Your task to perform on an android device: Go to eBay Image 0: 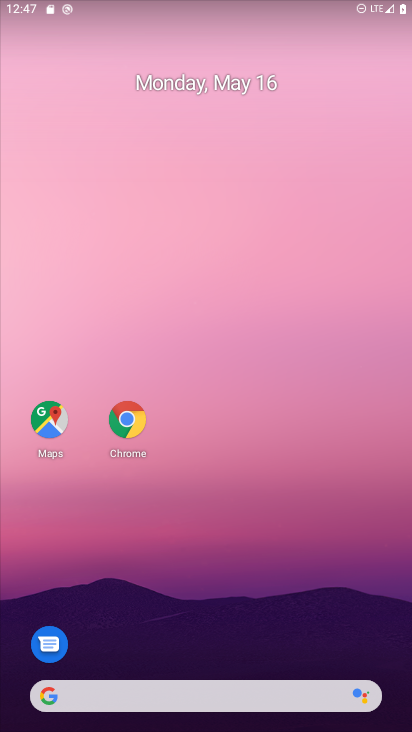
Step 0: click (200, 701)
Your task to perform on an android device: Go to eBay Image 1: 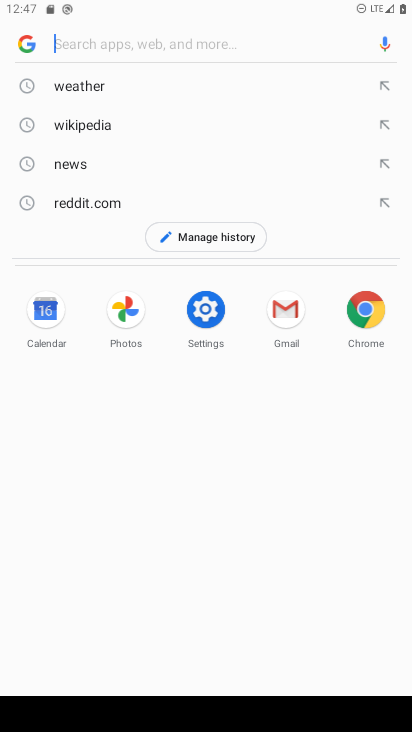
Step 1: type "ebay"
Your task to perform on an android device: Go to eBay Image 2: 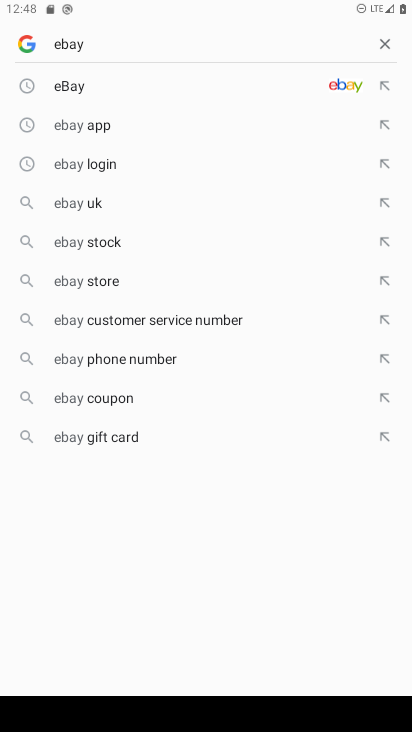
Step 2: click (185, 91)
Your task to perform on an android device: Go to eBay Image 3: 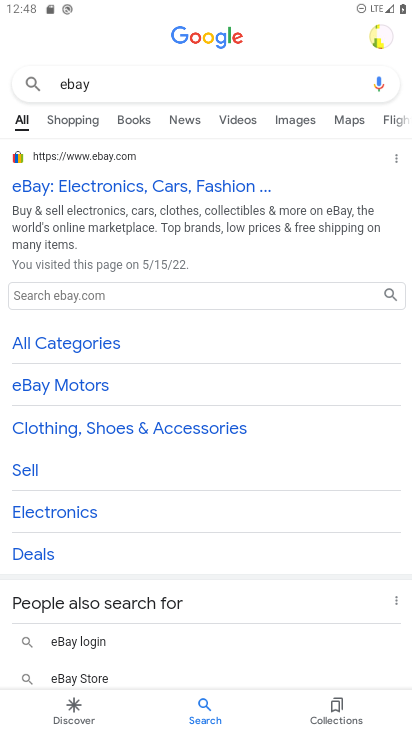
Step 3: drag from (157, 503) to (227, 184)
Your task to perform on an android device: Go to eBay Image 4: 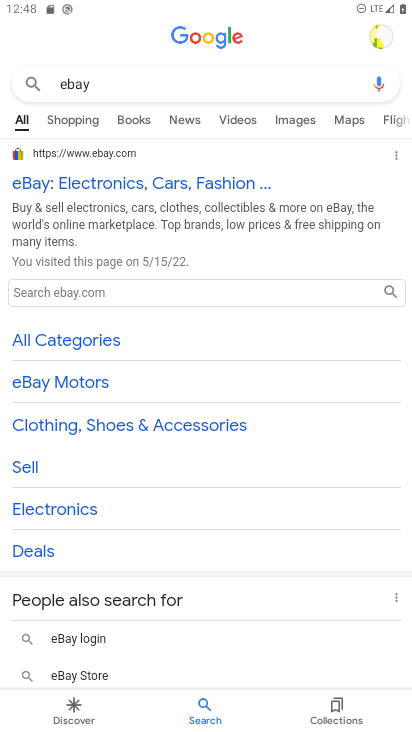
Step 4: drag from (195, 263) to (227, 492)
Your task to perform on an android device: Go to eBay Image 5: 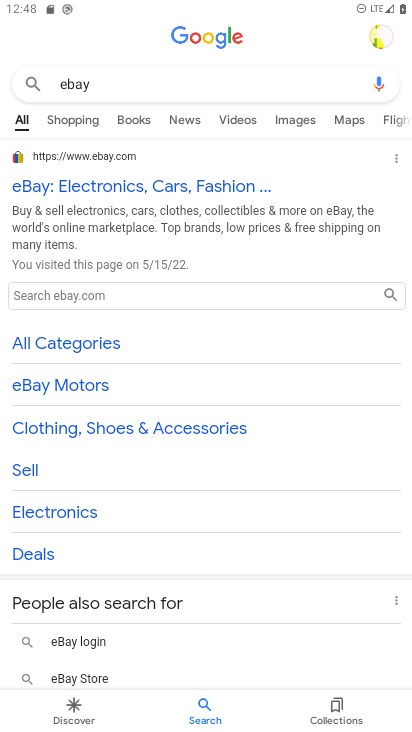
Step 5: click (90, 190)
Your task to perform on an android device: Go to eBay Image 6: 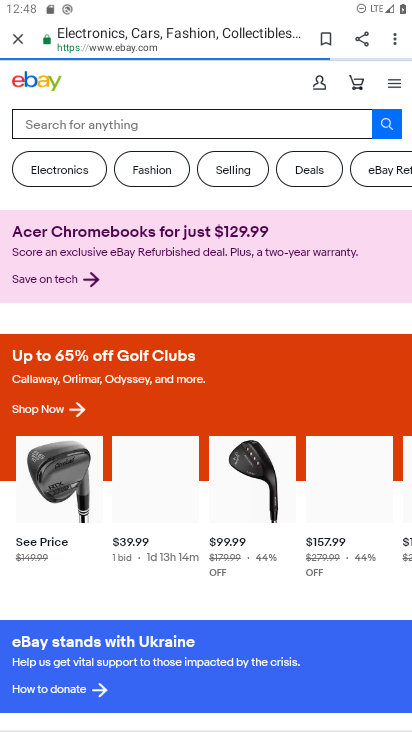
Step 6: task complete